Your task to perform on an android device: Toggle the flashlight Image 0: 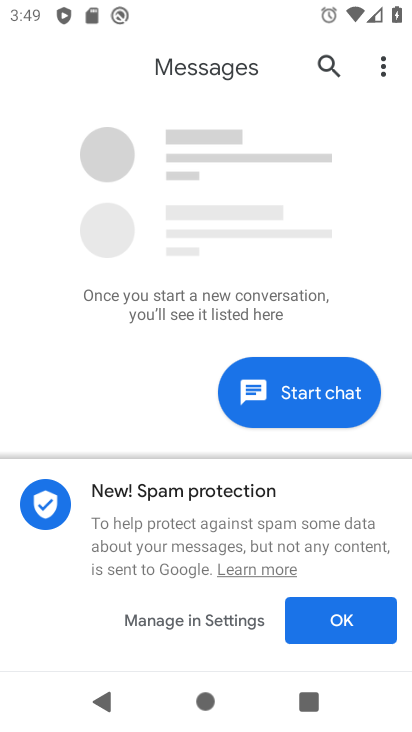
Step 0: press home button
Your task to perform on an android device: Toggle the flashlight Image 1: 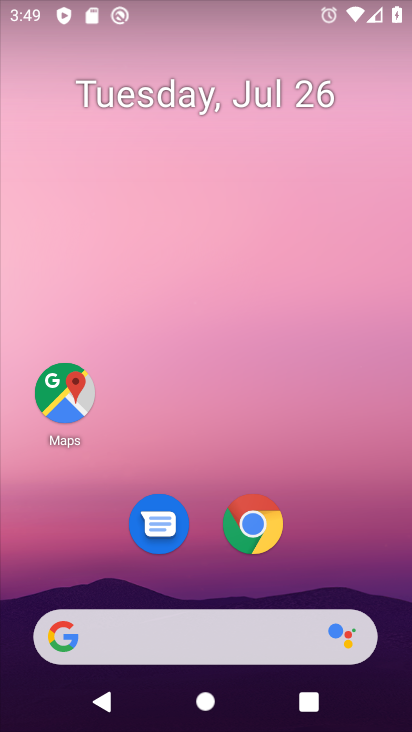
Step 1: drag from (301, 576) to (343, 33)
Your task to perform on an android device: Toggle the flashlight Image 2: 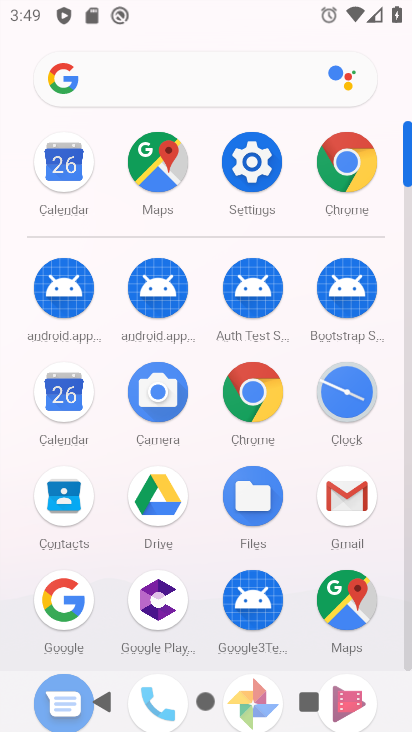
Step 2: click (257, 142)
Your task to perform on an android device: Toggle the flashlight Image 3: 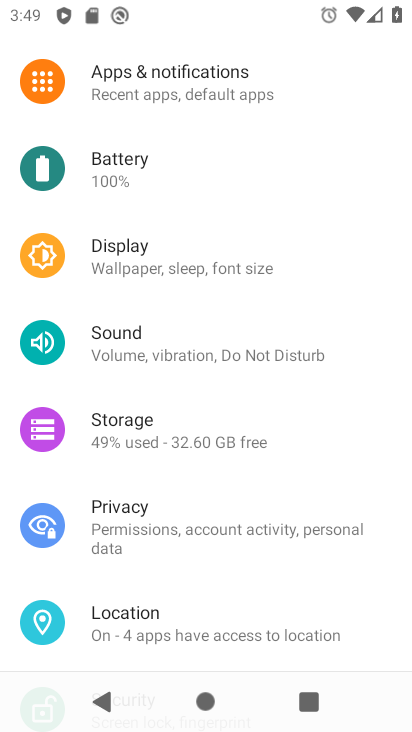
Step 3: drag from (239, 178) to (312, 703)
Your task to perform on an android device: Toggle the flashlight Image 4: 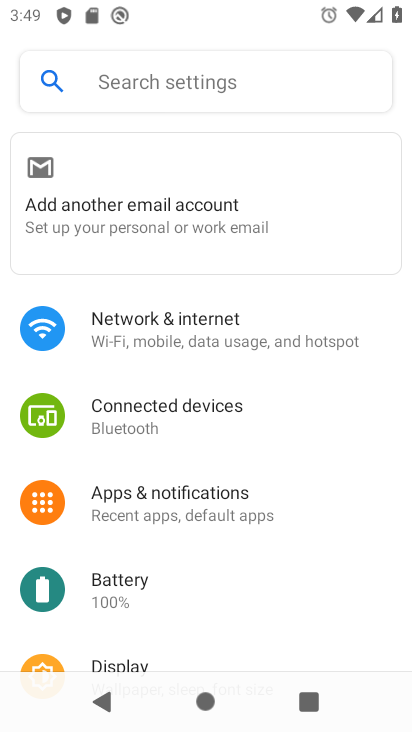
Step 4: click (236, 74)
Your task to perform on an android device: Toggle the flashlight Image 5: 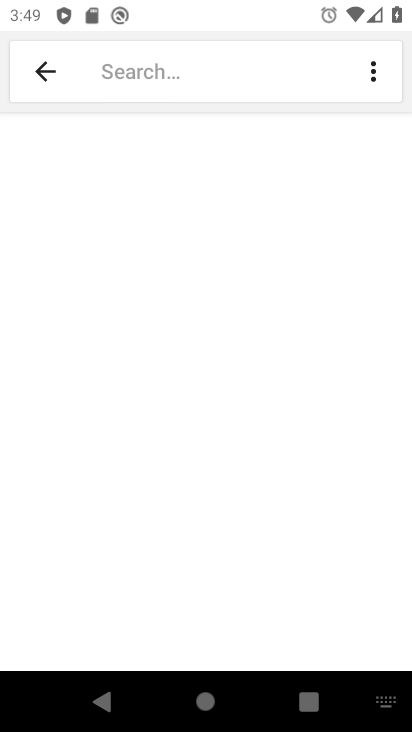
Step 5: type "Flashlight"
Your task to perform on an android device: Toggle the flashlight Image 6: 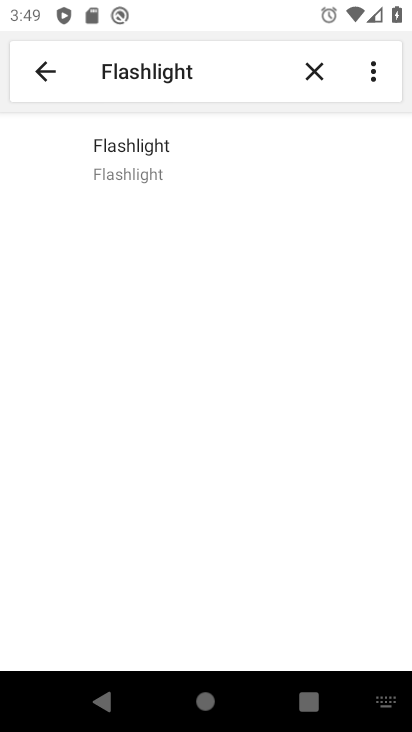
Step 6: click (151, 145)
Your task to perform on an android device: Toggle the flashlight Image 7: 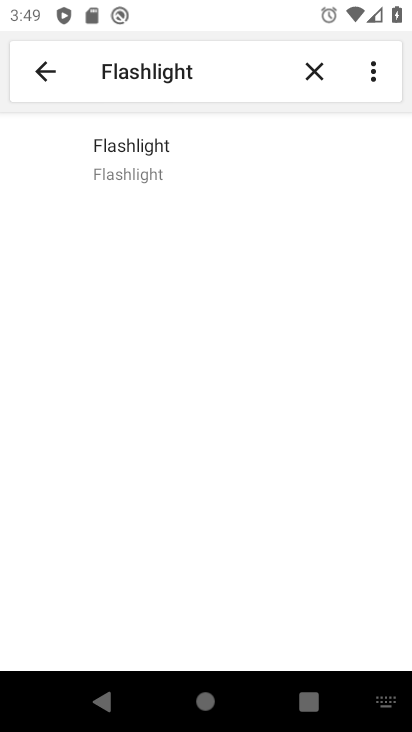
Step 7: click (157, 144)
Your task to perform on an android device: Toggle the flashlight Image 8: 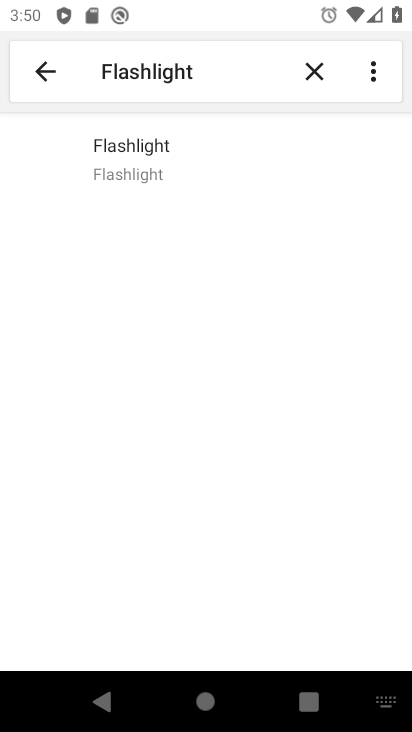
Step 8: task complete